Your task to perform on an android device: open wifi settings Image 0: 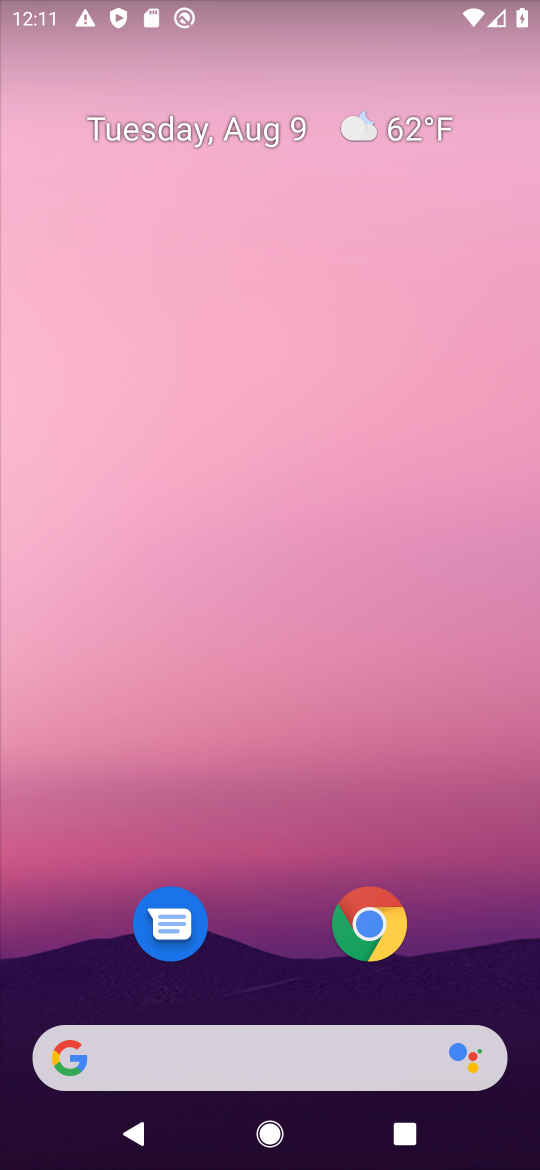
Step 0: drag from (272, 1019) to (245, 11)
Your task to perform on an android device: open wifi settings Image 1: 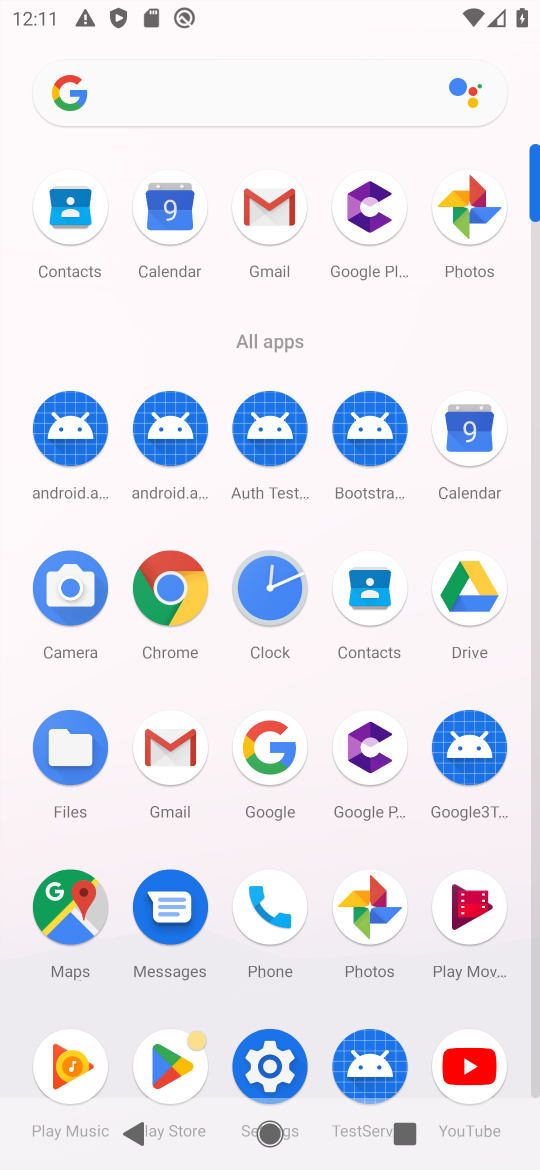
Step 1: click (275, 1090)
Your task to perform on an android device: open wifi settings Image 2: 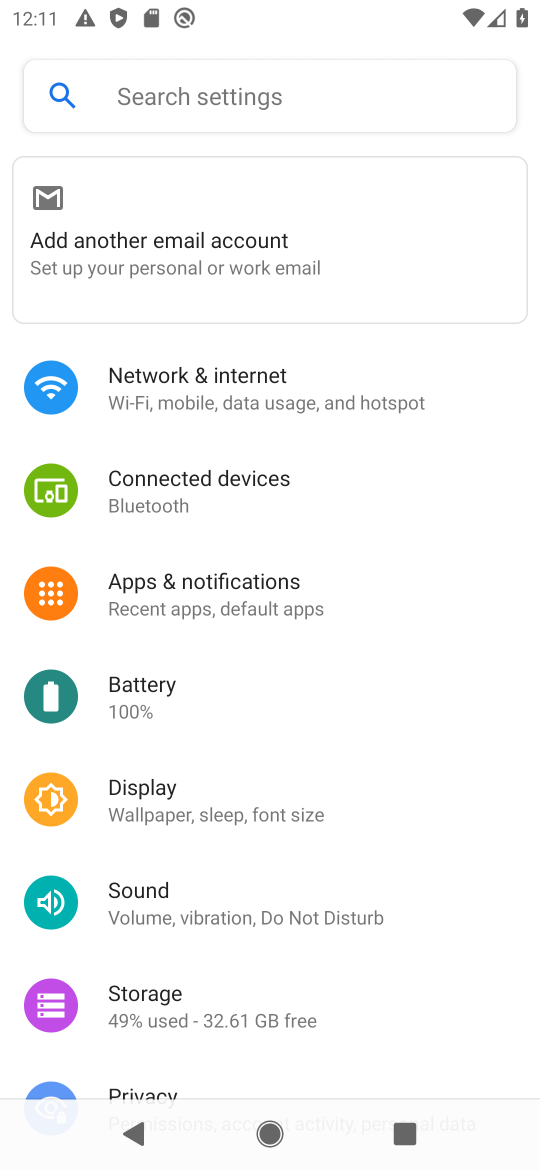
Step 2: click (151, 407)
Your task to perform on an android device: open wifi settings Image 3: 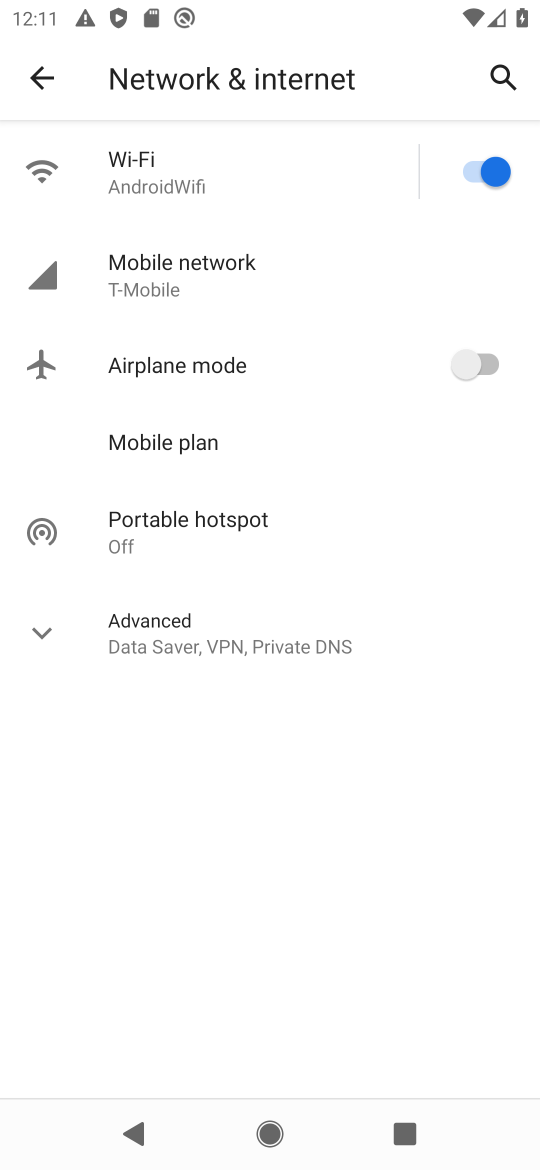
Step 3: task complete